Your task to perform on an android device: Add "razer kraken" to the cart on newegg.com Image 0: 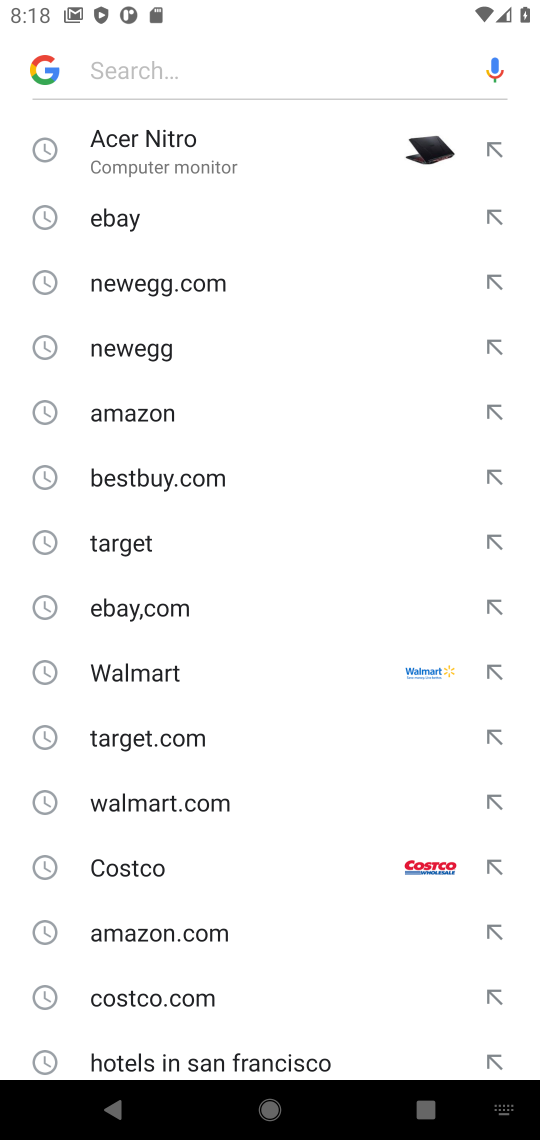
Step 0: click (139, 266)
Your task to perform on an android device: Add "razer kraken" to the cart on newegg.com Image 1: 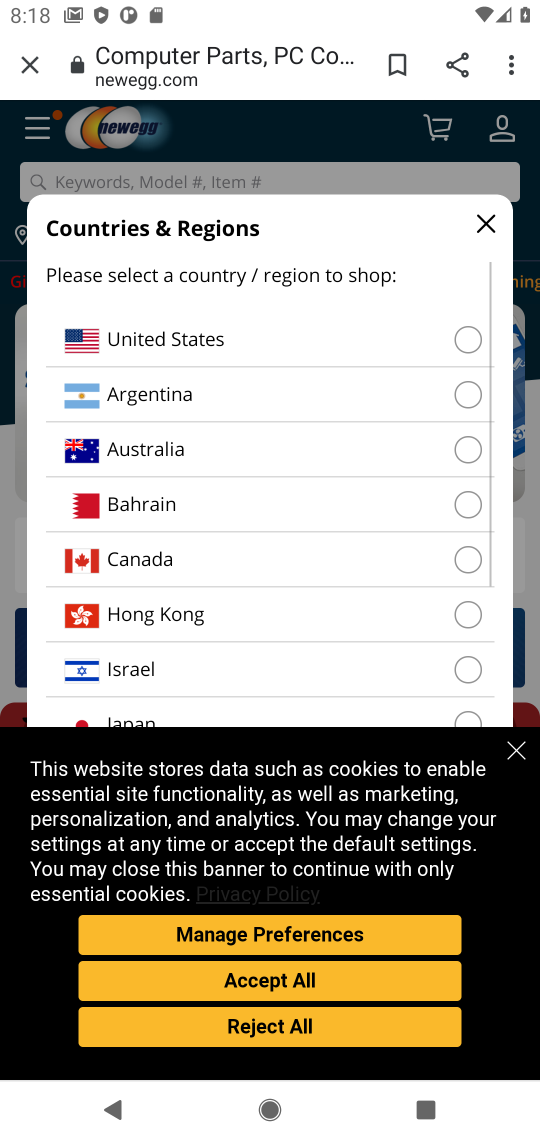
Step 1: click (285, 347)
Your task to perform on an android device: Add "razer kraken" to the cart on newegg.com Image 2: 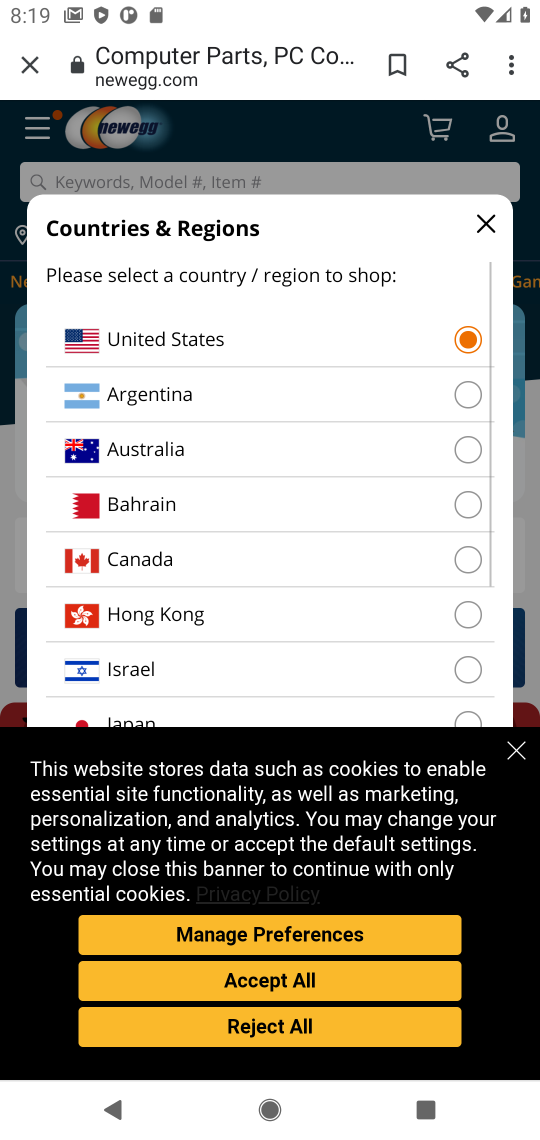
Step 2: click (478, 229)
Your task to perform on an android device: Add "razer kraken" to the cart on newegg.com Image 3: 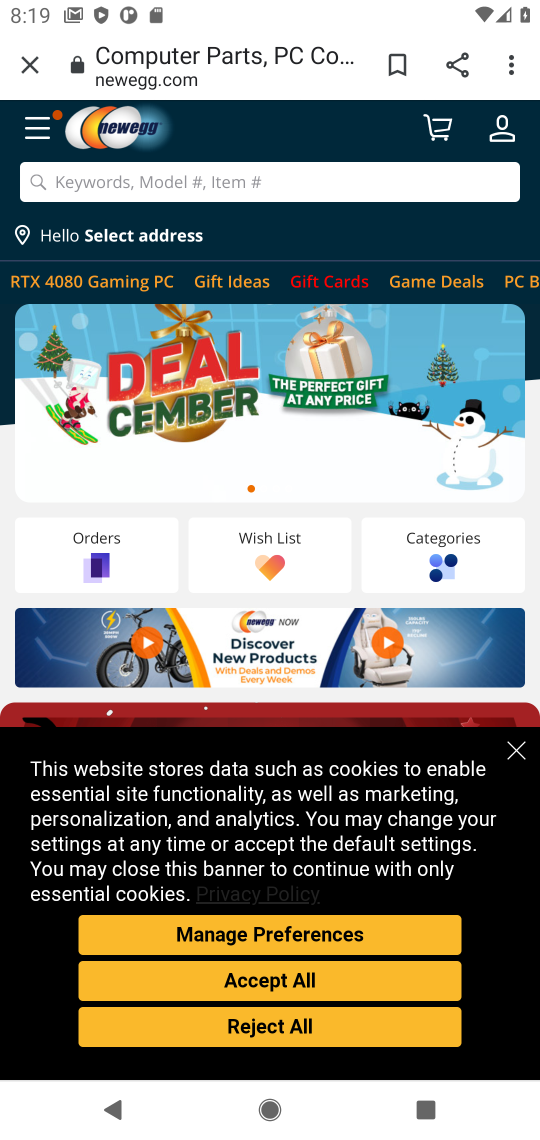
Step 3: click (301, 977)
Your task to perform on an android device: Add "razer kraken" to the cart on newegg.com Image 4: 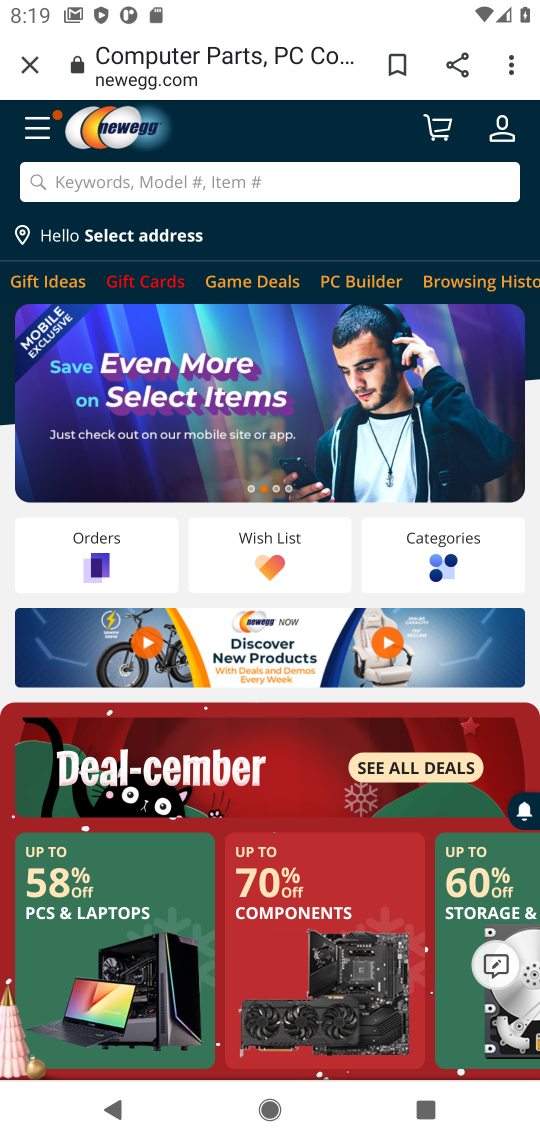
Step 4: click (314, 188)
Your task to perform on an android device: Add "razer kraken" to the cart on newegg.com Image 5: 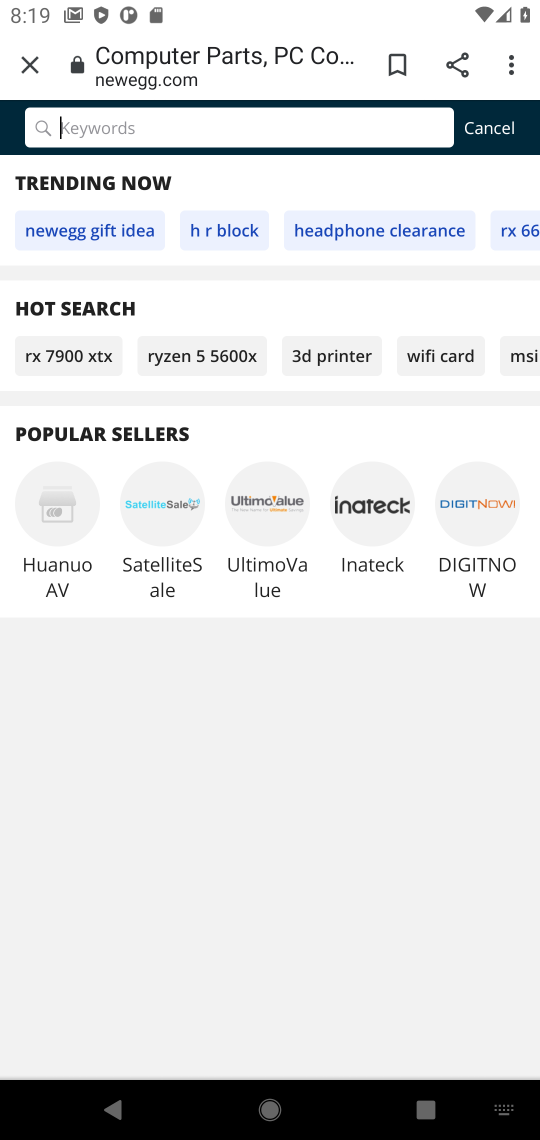
Step 5: type "razer karken"
Your task to perform on an android device: Add "razer kraken" to the cart on newegg.com Image 6: 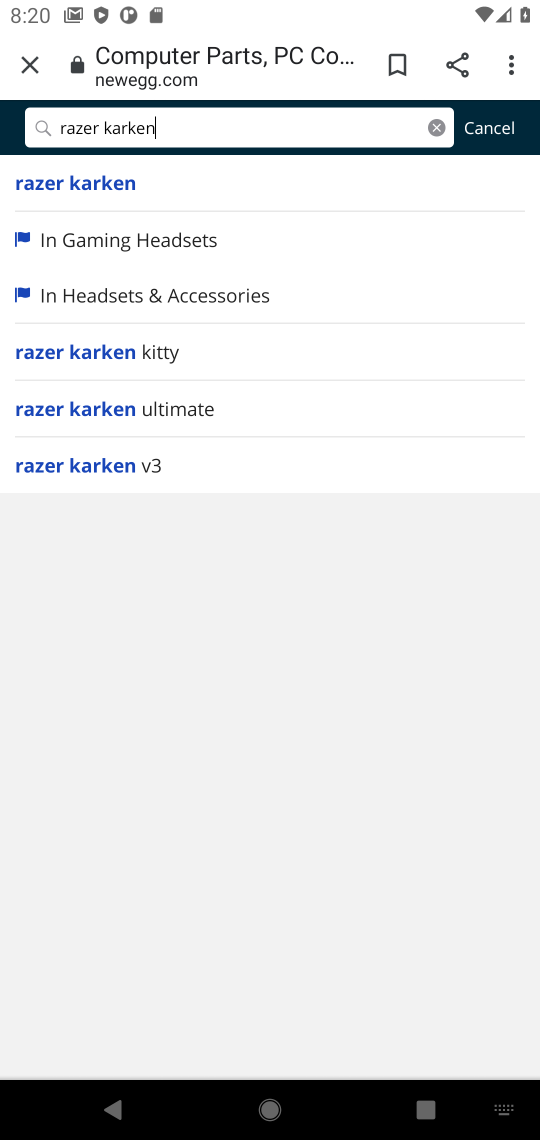
Step 6: click (75, 194)
Your task to perform on an android device: Add "razer kraken" to the cart on newegg.com Image 7: 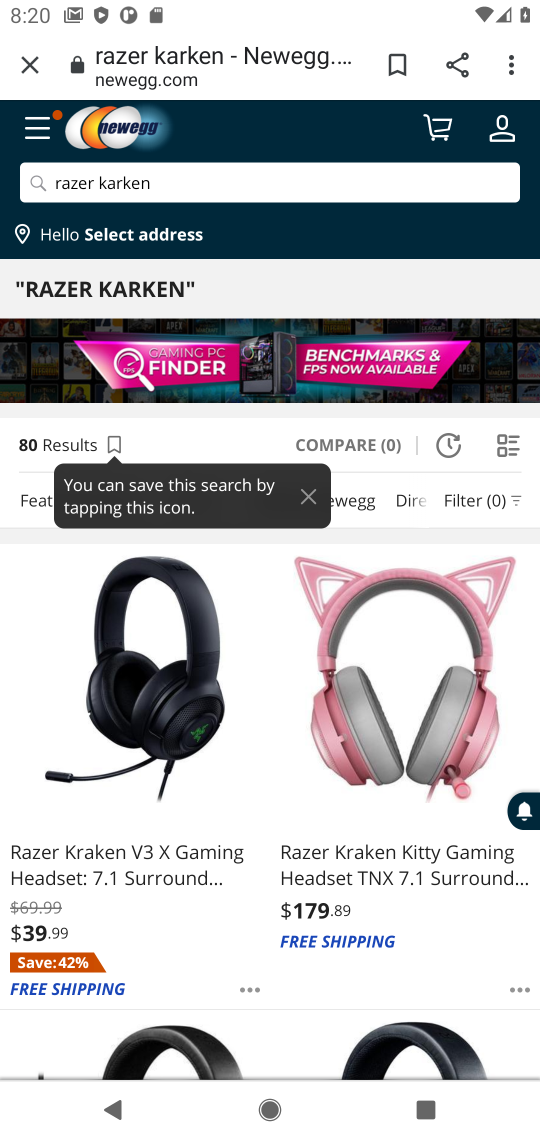
Step 7: click (145, 839)
Your task to perform on an android device: Add "razer kraken" to the cart on newegg.com Image 8: 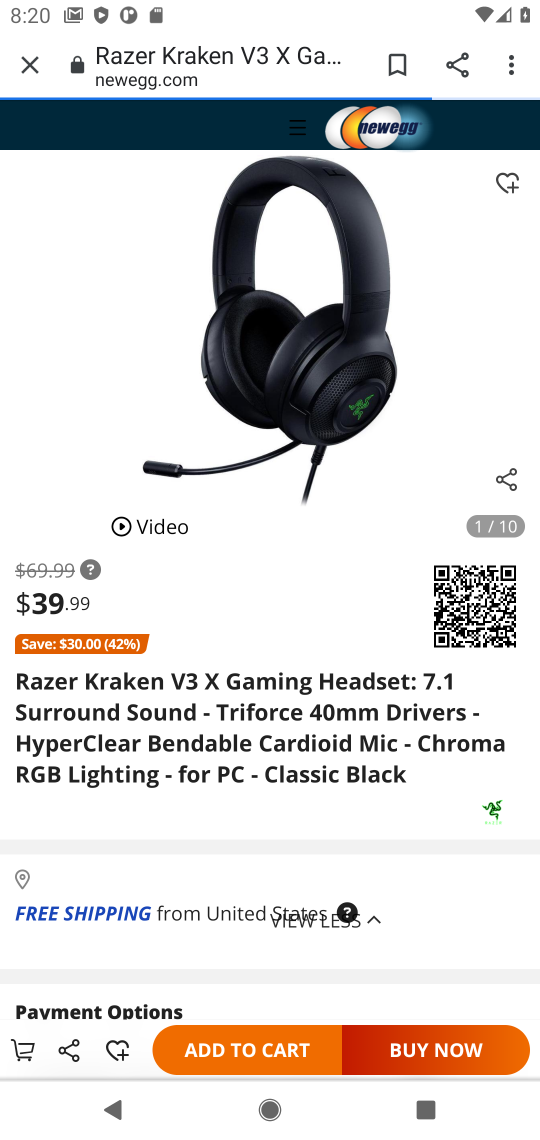
Step 8: click (145, 839)
Your task to perform on an android device: Add "razer kraken" to the cart on newegg.com Image 9: 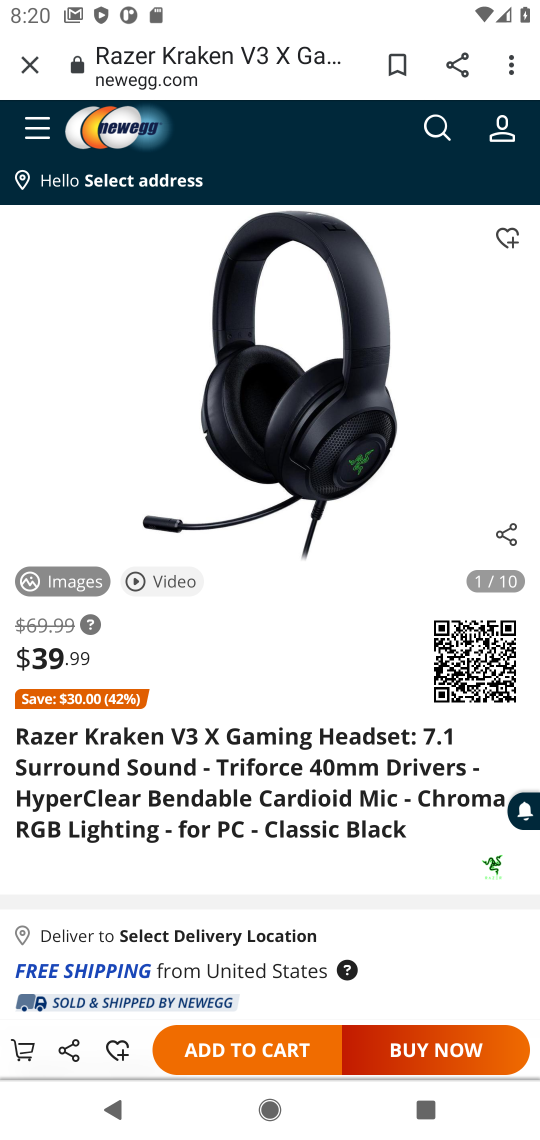
Step 9: click (265, 1040)
Your task to perform on an android device: Add "razer kraken" to the cart on newegg.com Image 10: 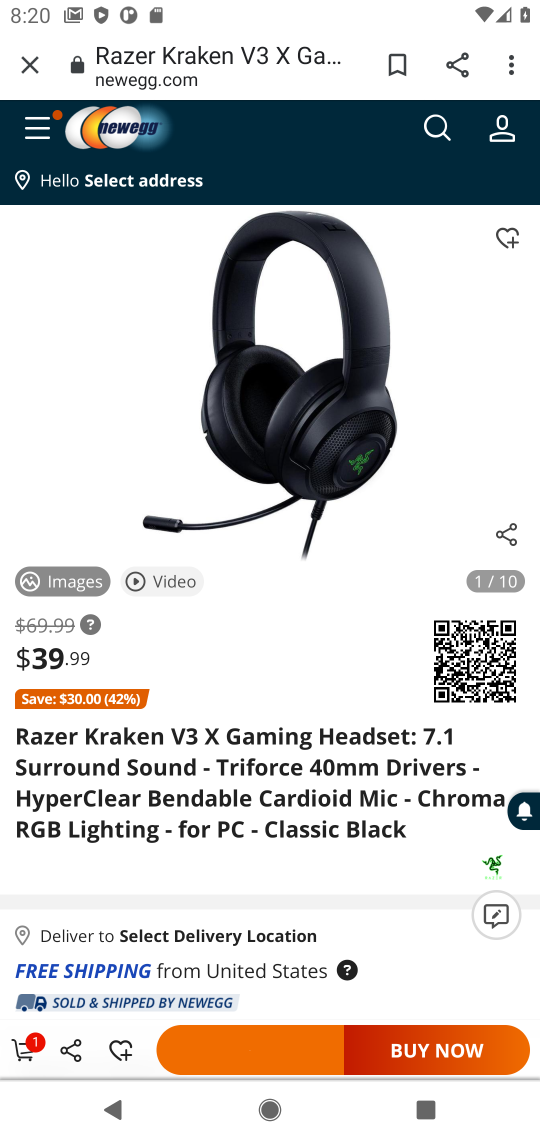
Step 10: task complete